Your task to perform on an android device: empty trash in the gmail app Image 0: 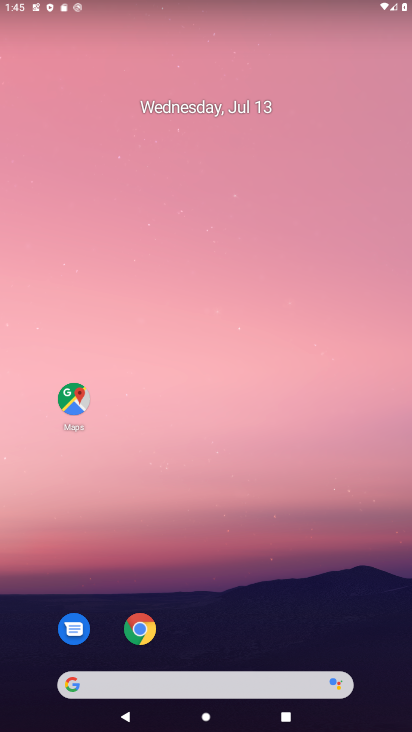
Step 0: drag from (192, 682) to (247, 201)
Your task to perform on an android device: empty trash in the gmail app Image 1: 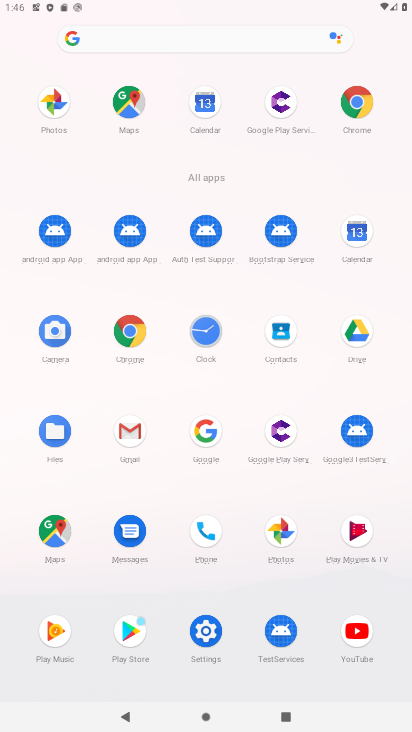
Step 1: click (130, 431)
Your task to perform on an android device: empty trash in the gmail app Image 2: 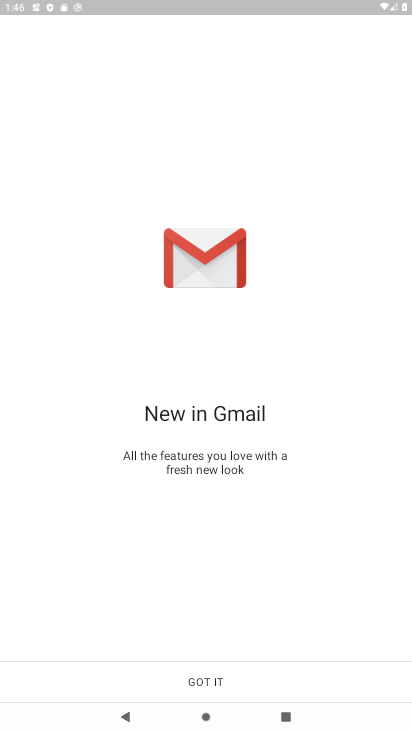
Step 2: click (208, 679)
Your task to perform on an android device: empty trash in the gmail app Image 3: 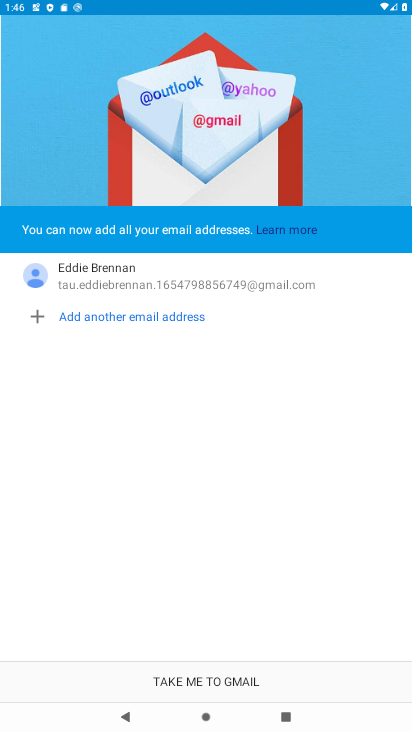
Step 3: click (208, 679)
Your task to perform on an android device: empty trash in the gmail app Image 4: 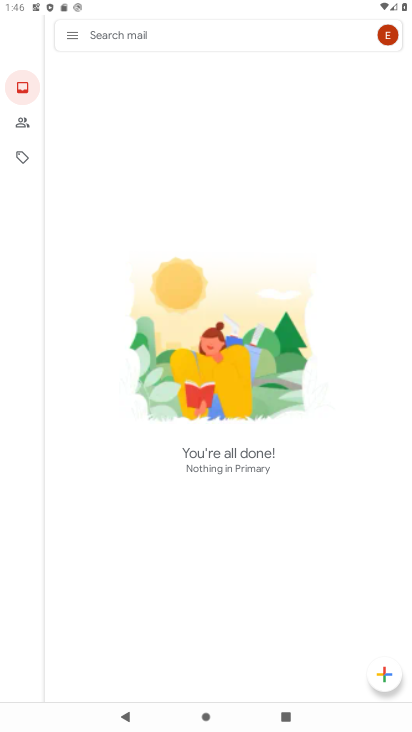
Step 4: click (71, 34)
Your task to perform on an android device: empty trash in the gmail app Image 5: 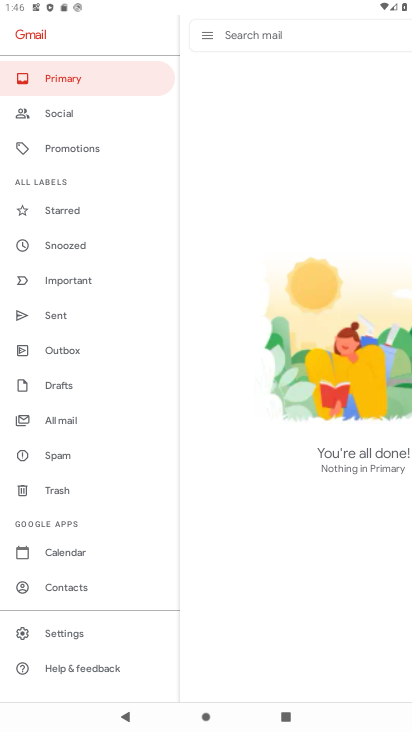
Step 5: click (57, 488)
Your task to perform on an android device: empty trash in the gmail app Image 6: 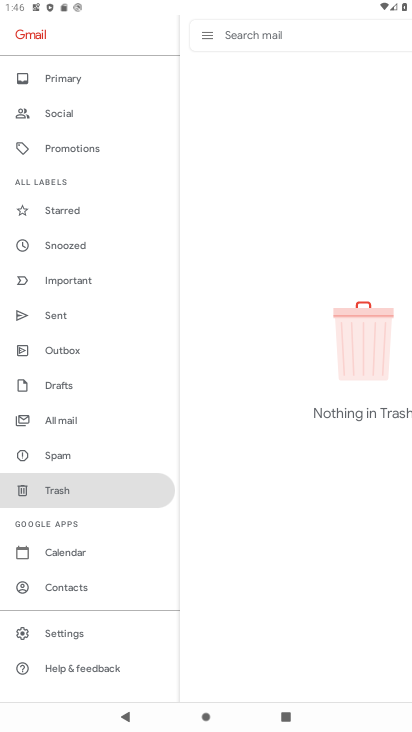
Step 6: task complete